Your task to perform on an android device: check the backup settings in the google photos Image 0: 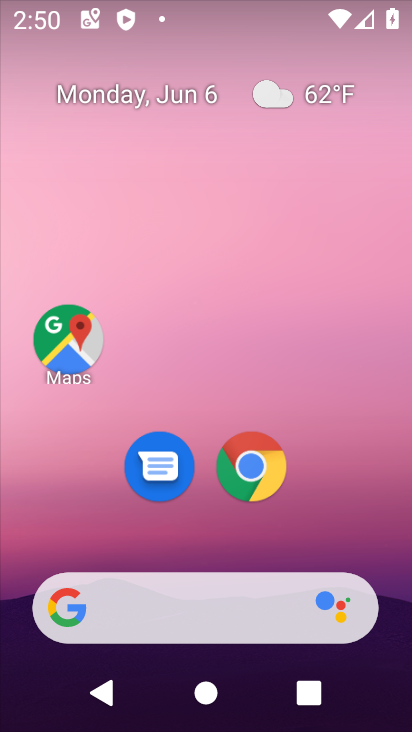
Step 0: drag from (269, 676) to (248, 15)
Your task to perform on an android device: check the backup settings in the google photos Image 1: 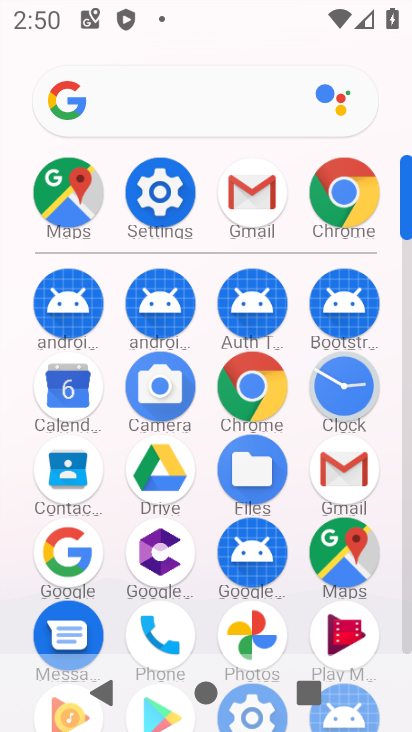
Step 1: click (270, 626)
Your task to perform on an android device: check the backup settings in the google photos Image 2: 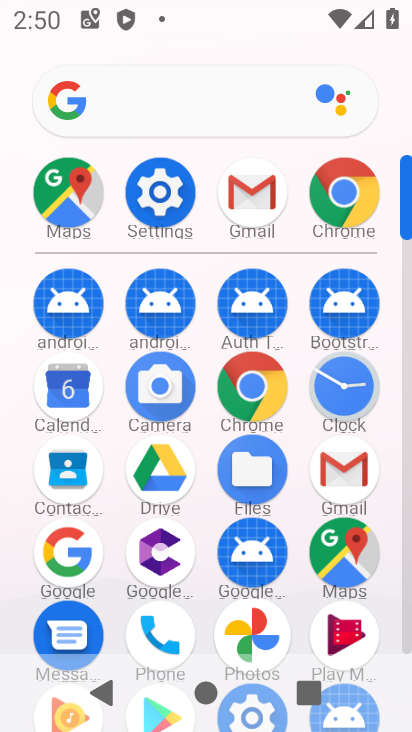
Step 2: click (274, 624)
Your task to perform on an android device: check the backup settings in the google photos Image 3: 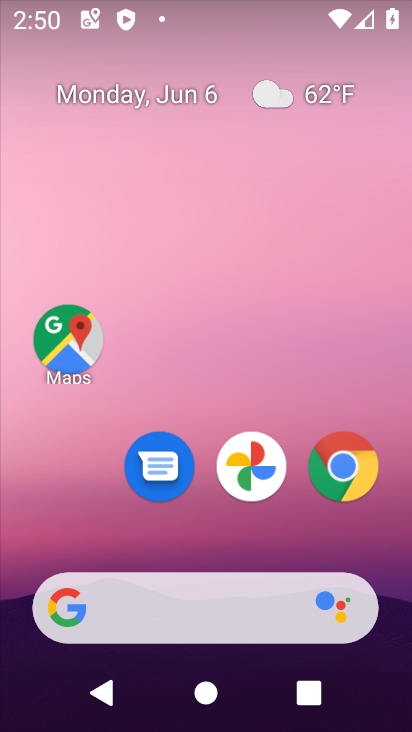
Step 3: drag from (247, 647) to (177, 197)
Your task to perform on an android device: check the backup settings in the google photos Image 4: 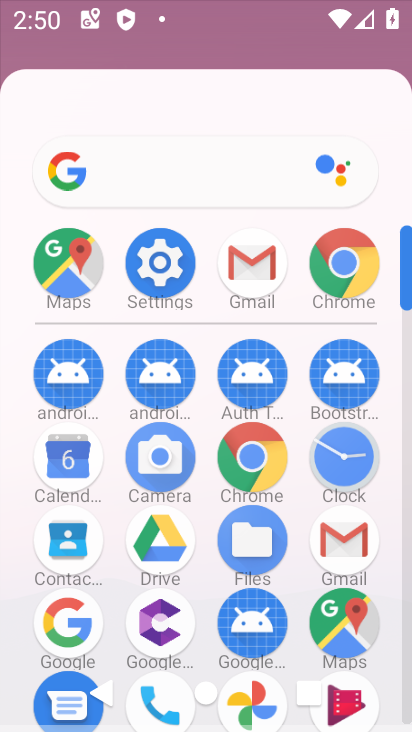
Step 4: drag from (254, 622) to (221, 115)
Your task to perform on an android device: check the backup settings in the google photos Image 5: 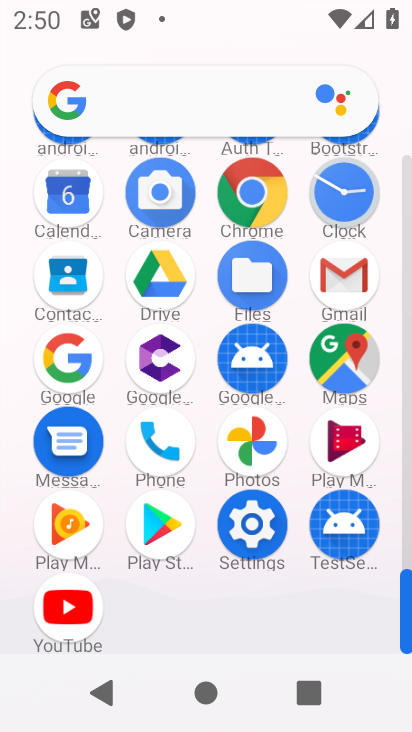
Step 5: click (242, 459)
Your task to perform on an android device: check the backup settings in the google photos Image 6: 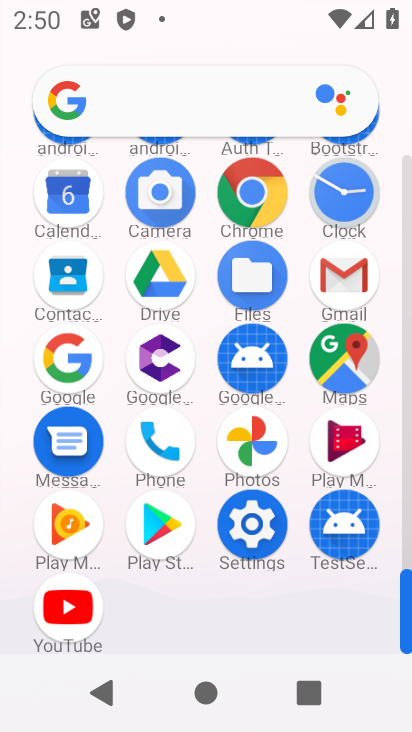
Step 6: click (250, 409)
Your task to perform on an android device: check the backup settings in the google photos Image 7: 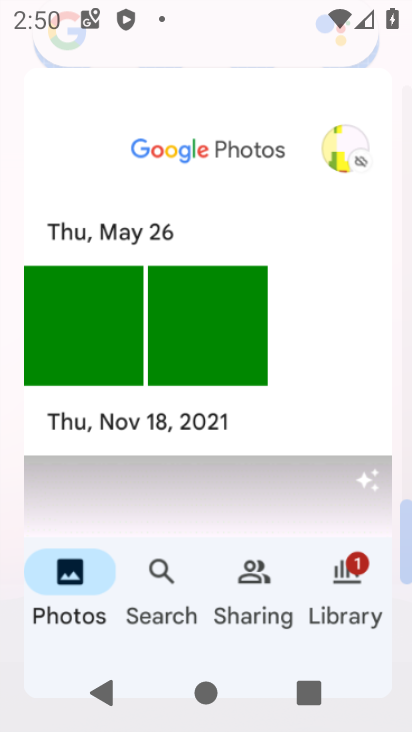
Step 7: click (252, 451)
Your task to perform on an android device: check the backup settings in the google photos Image 8: 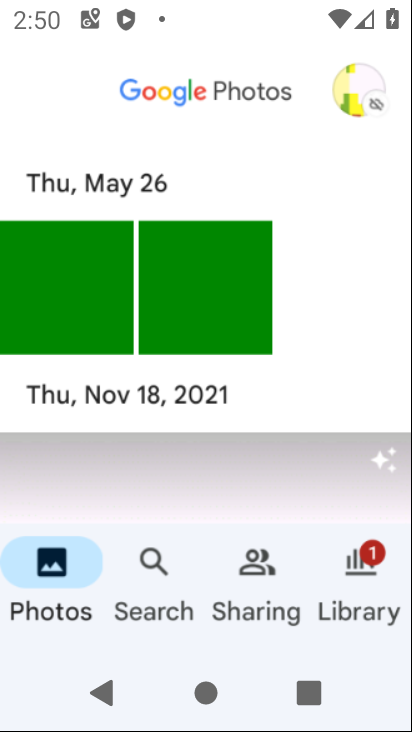
Step 8: click (253, 446)
Your task to perform on an android device: check the backup settings in the google photos Image 9: 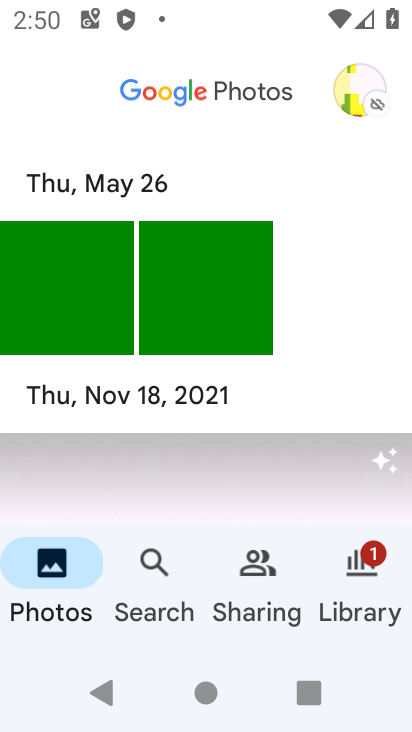
Step 9: drag from (184, 580) to (109, 169)
Your task to perform on an android device: check the backup settings in the google photos Image 10: 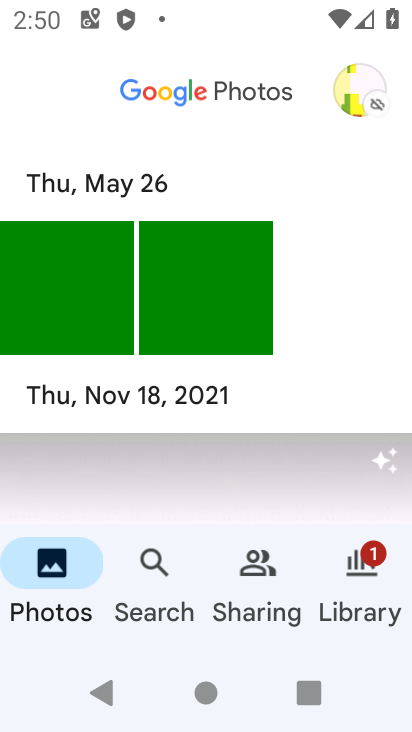
Step 10: drag from (180, 200) to (233, 497)
Your task to perform on an android device: check the backup settings in the google photos Image 11: 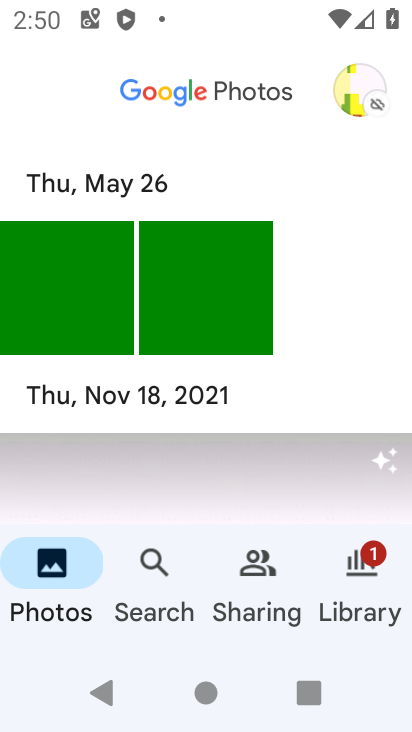
Step 11: drag from (203, 214) to (295, 425)
Your task to perform on an android device: check the backup settings in the google photos Image 12: 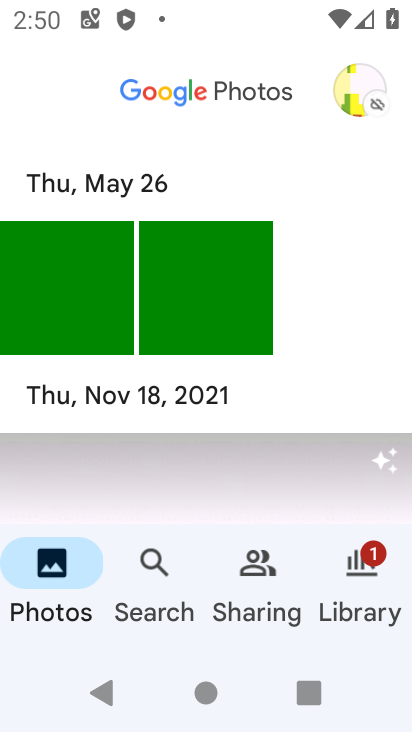
Step 12: click (366, 86)
Your task to perform on an android device: check the backup settings in the google photos Image 13: 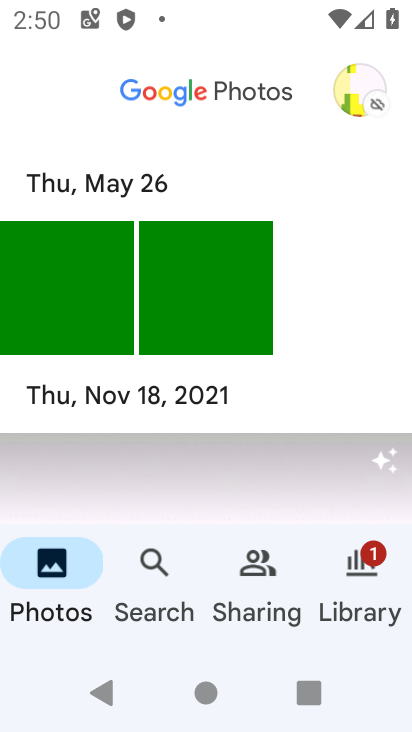
Step 13: click (367, 89)
Your task to perform on an android device: check the backup settings in the google photos Image 14: 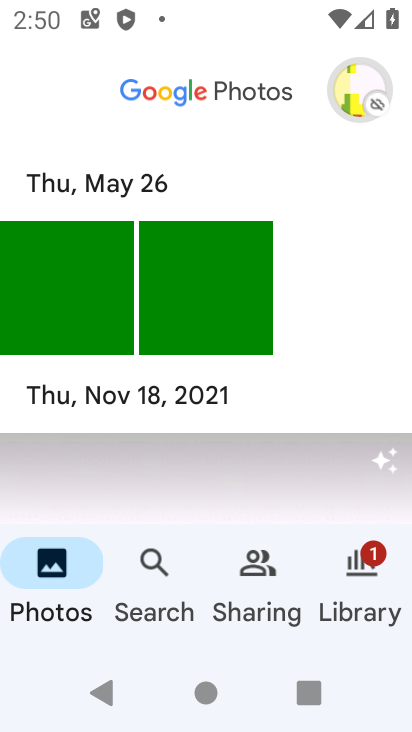
Step 14: click (370, 87)
Your task to perform on an android device: check the backup settings in the google photos Image 15: 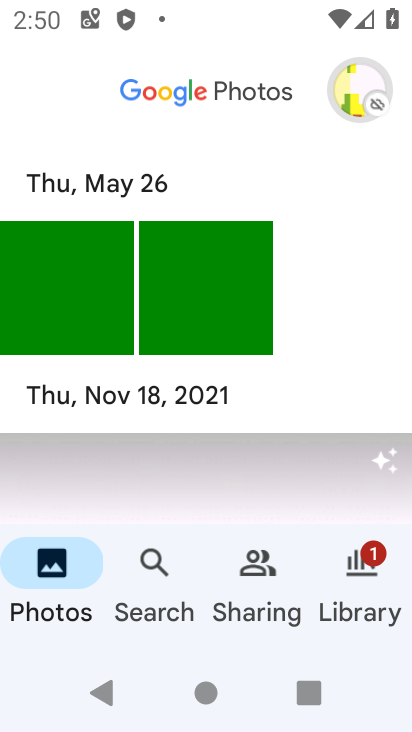
Step 15: click (370, 87)
Your task to perform on an android device: check the backup settings in the google photos Image 16: 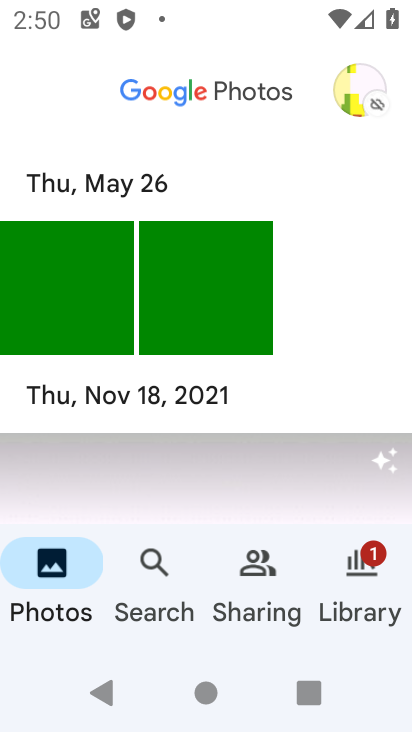
Step 16: click (367, 93)
Your task to perform on an android device: check the backup settings in the google photos Image 17: 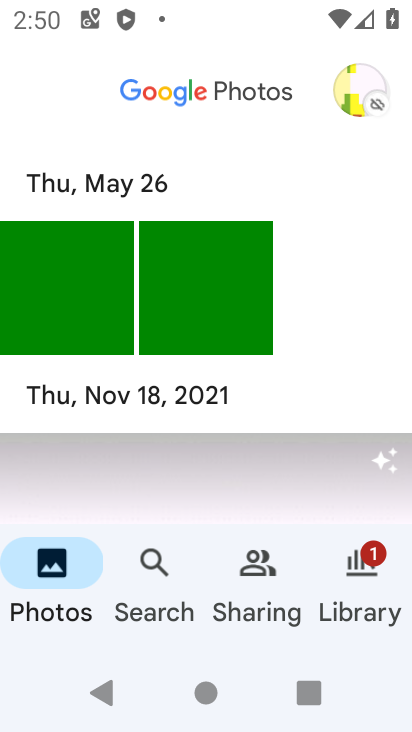
Step 17: task complete